Your task to perform on an android device: Go to notification settings Image 0: 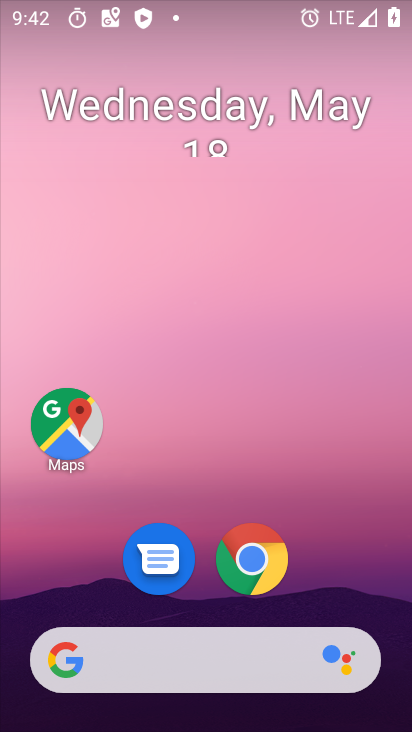
Step 0: drag from (318, 503) to (282, 7)
Your task to perform on an android device: Go to notification settings Image 1: 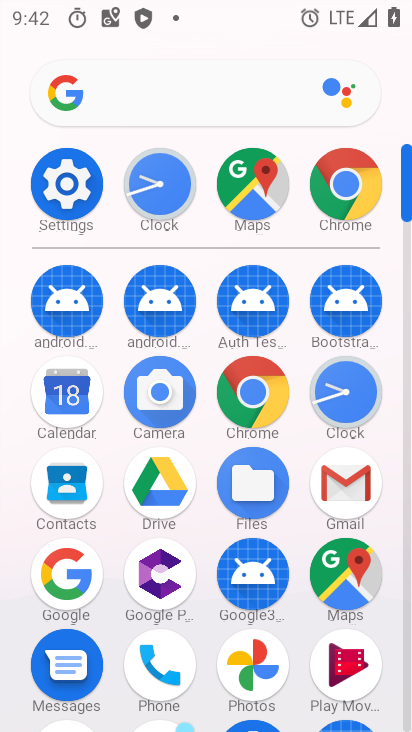
Step 1: drag from (6, 502) to (6, 121)
Your task to perform on an android device: Go to notification settings Image 2: 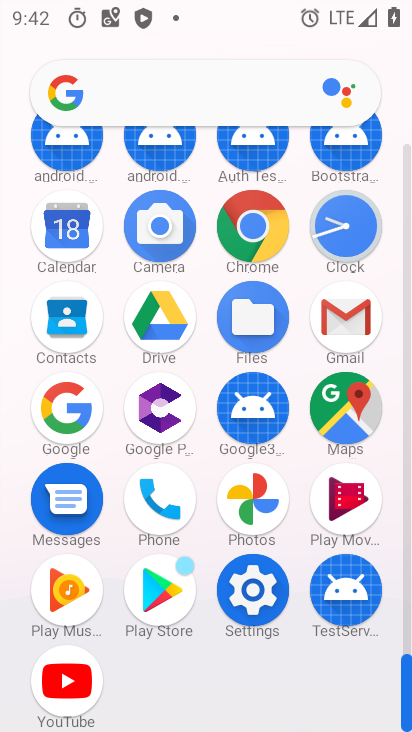
Step 2: click (253, 587)
Your task to perform on an android device: Go to notification settings Image 3: 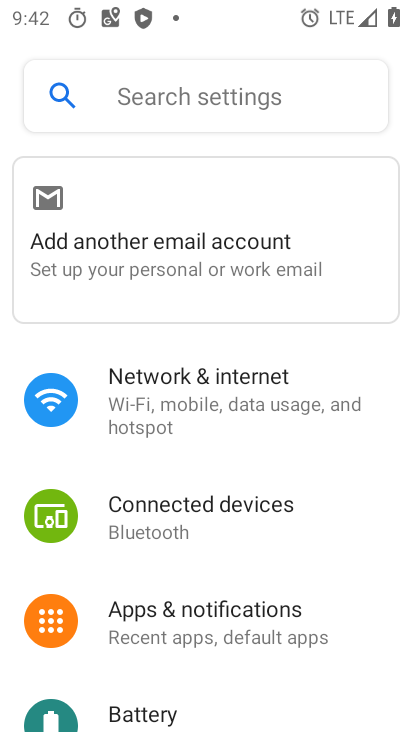
Step 3: drag from (333, 638) to (377, 261)
Your task to perform on an android device: Go to notification settings Image 4: 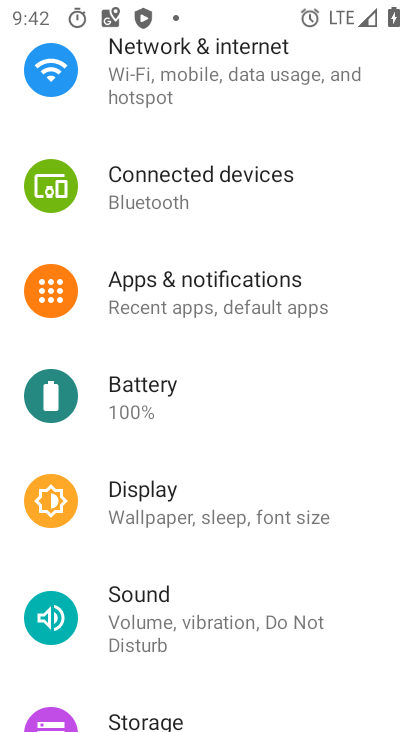
Step 4: click (312, 288)
Your task to perform on an android device: Go to notification settings Image 5: 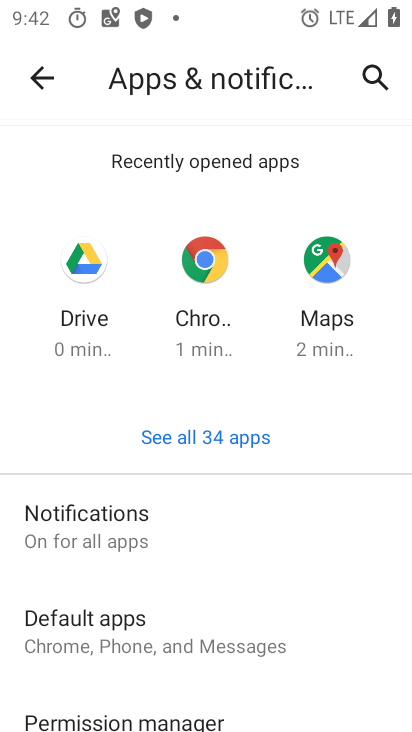
Step 5: click (165, 538)
Your task to perform on an android device: Go to notification settings Image 6: 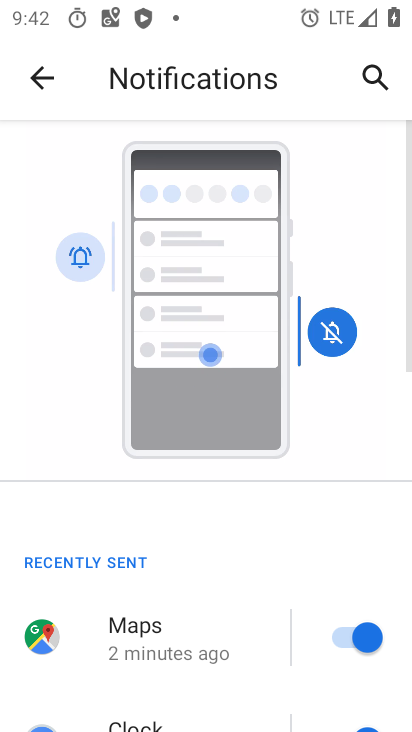
Step 6: drag from (222, 544) to (296, 139)
Your task to perform on an android device: Go to notification settings Image 7: 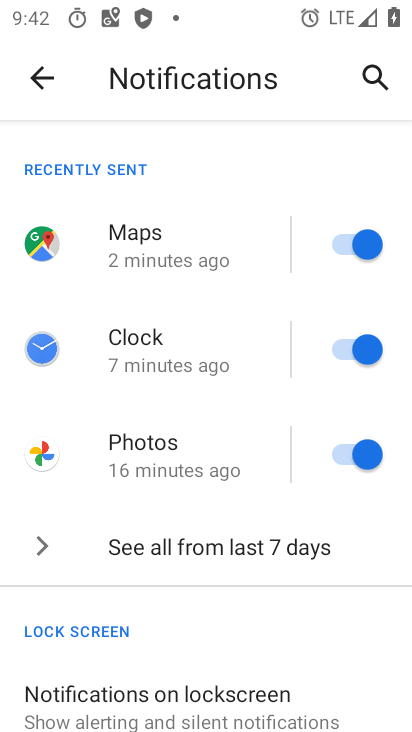
Step 7: drag from (191, 641) to (218, 181)
Your task to perform on an android device: Go to notification settings Image 8: 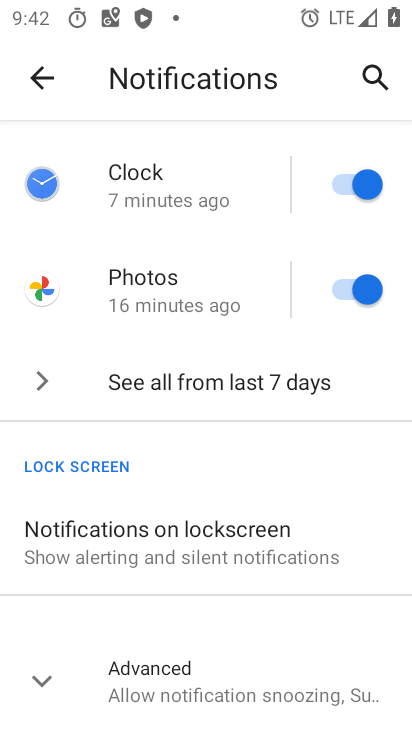
Step 8: click (119, 655)
Your task to perform on an android device: Go to notification settings Image 9: 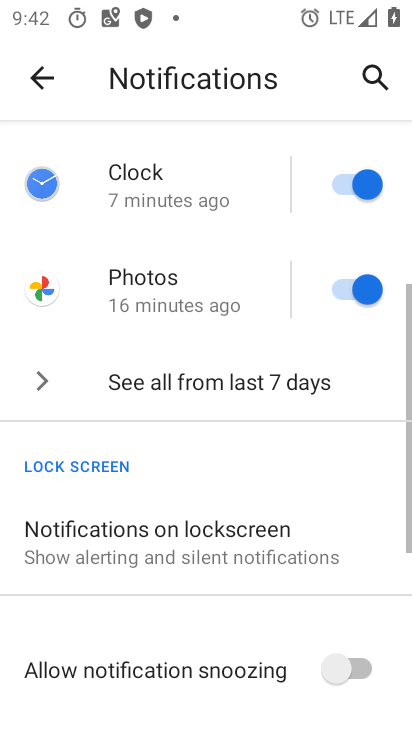
Step 9: task complete